Your task to perform on an android device: Go to Maps Image 0: 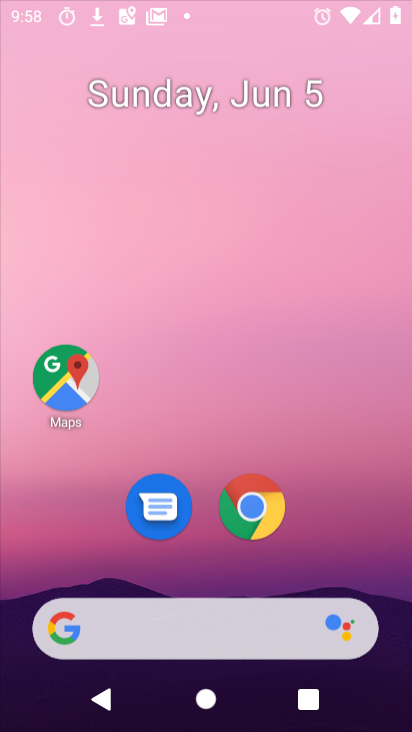
Step 0: click (214, 129)
Your task to perform on an android device: Go to Maps Image 1: 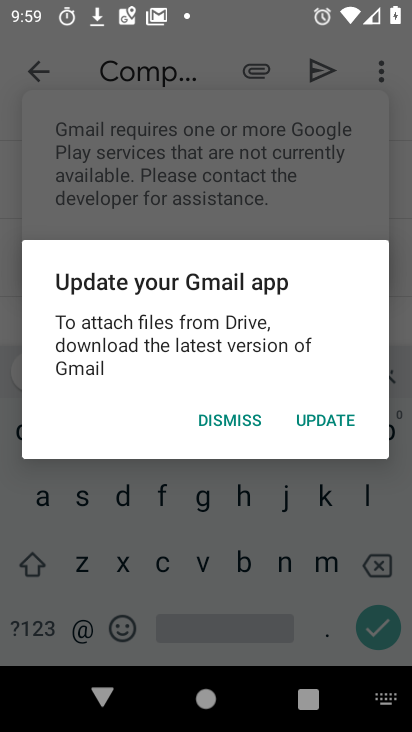
Step 1: click (246, 421)
Your task to perform on an android device: Go to Maps Image 2: 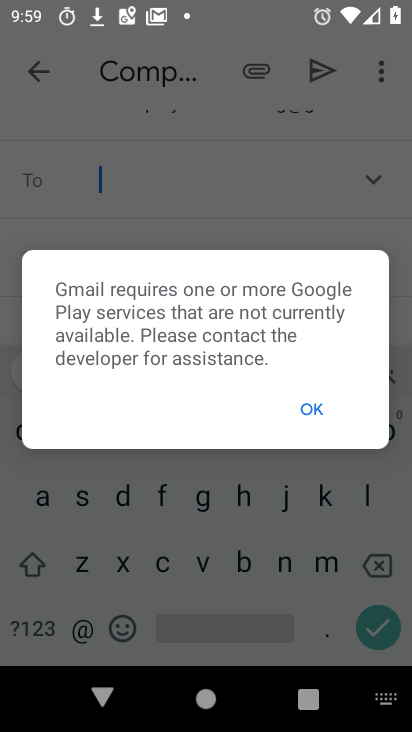
Step 2: press home button
Your task to perform on an android device: Go to Maps Image 3: 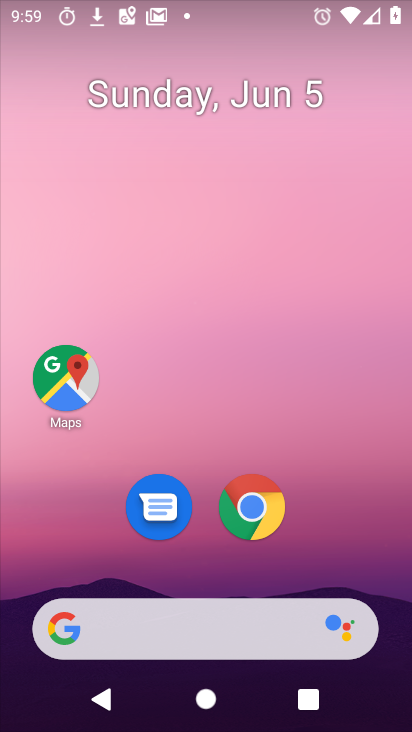
Step 3: drag from (185, 659) to (164, 178)
Your task to perform on an android device: Go to Maps Image 4: 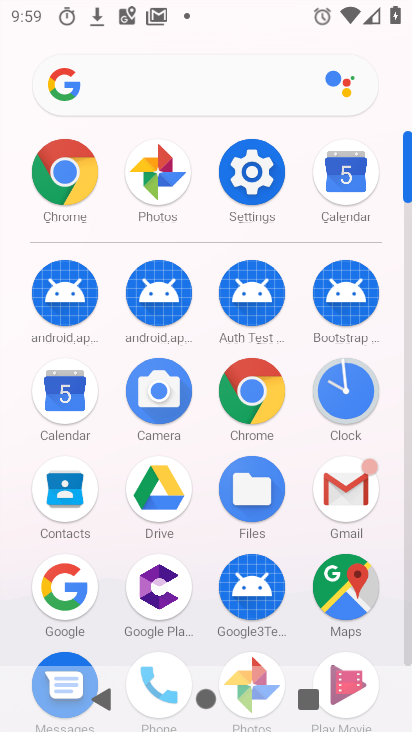
Step 4: click (340, 597)
Your task to perform on an android device: Go to Maps Image 5: 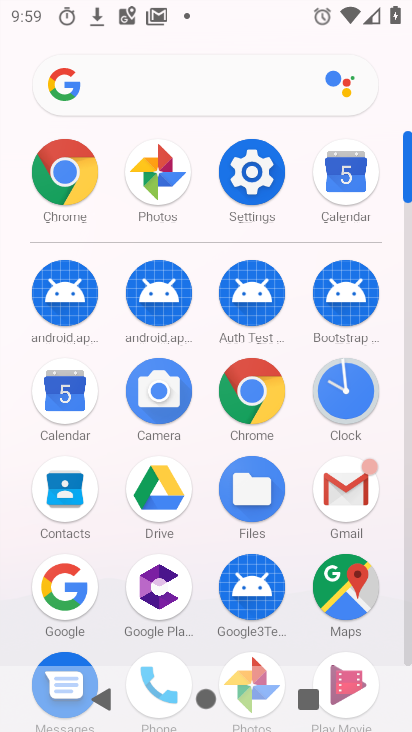
Step 5: click (334, 583)
Your task to perform on an android device: Go to Maps Image 6: 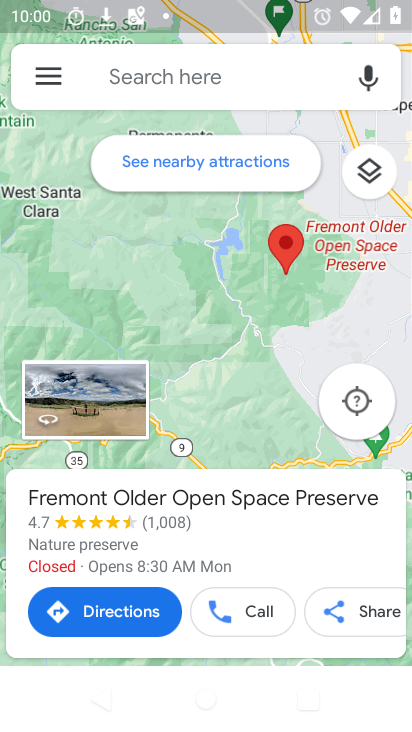
Step 6: task complete